Your task to perform on an android device: Open Chrome and go to settings Image 0: 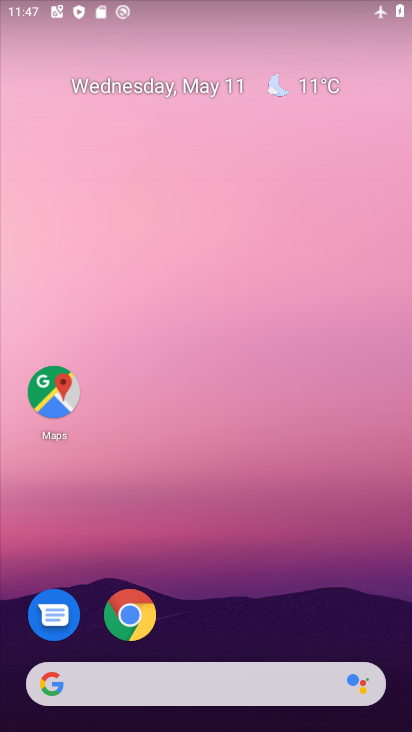
Step 0: click (136, 611)
Your task to perform on an android device: Open Chrome and go to settings Image 1: 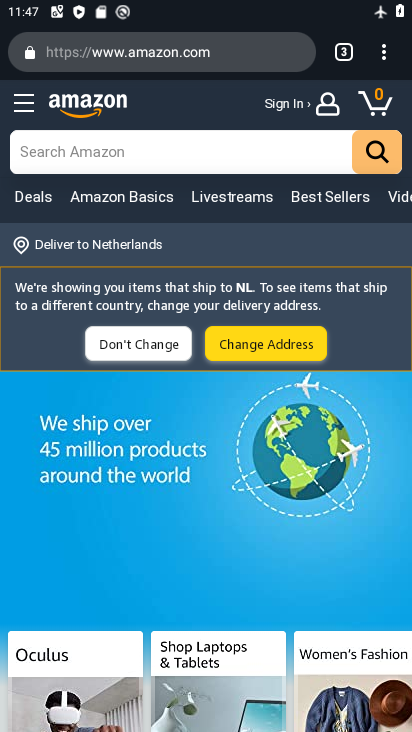
Step 1: task complete